Your task to perform on an android device: check android version Image 0: 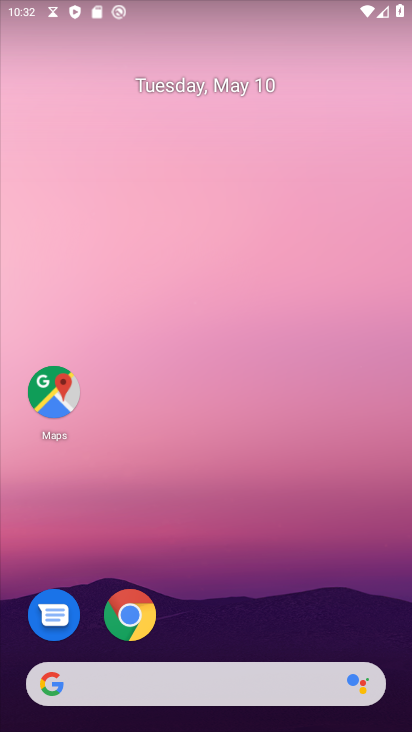
Step 0: drag from (232, 572) to (280, 51)
Your task to perform on an android device: check android version Image 1: 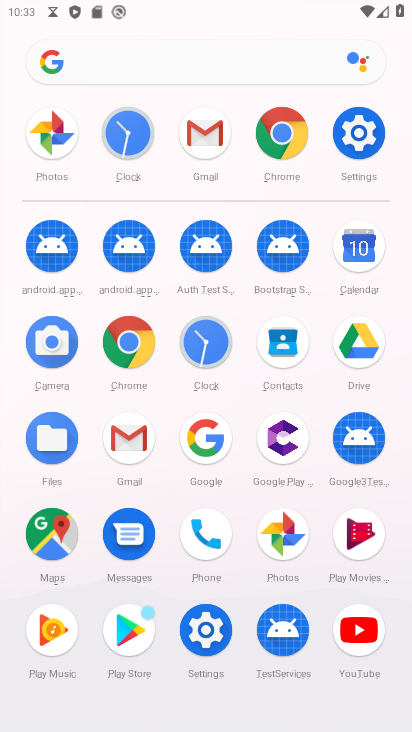
Step 1: click (206, 628)
Your task to perform on an android device: check android version Image 2: 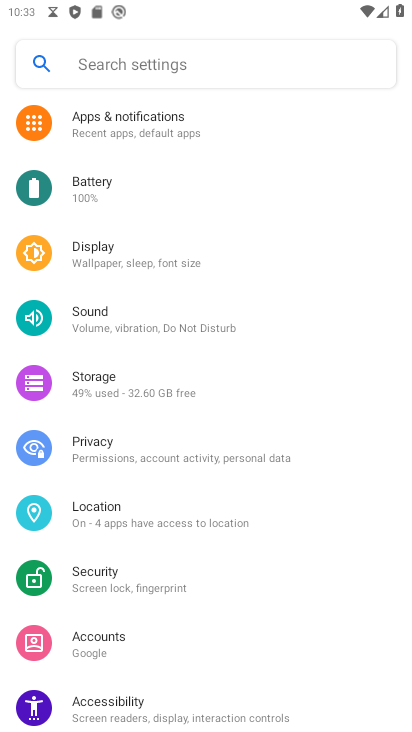
Step 2: drag from (209, 683) to (253, 560)
Your task to perform on an android device: check android version Image 3: 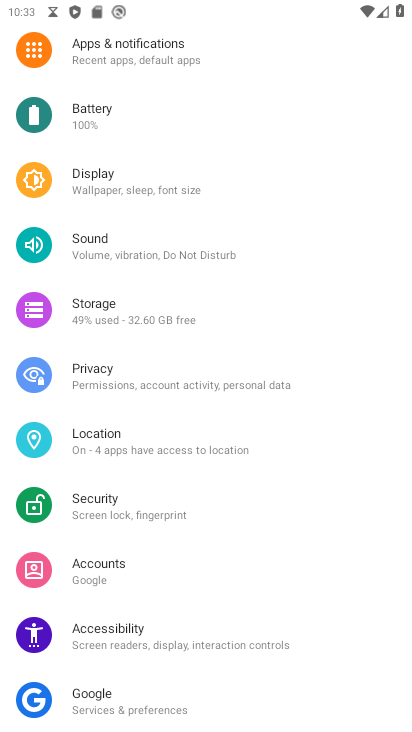
Step 3: drag from (192, 658) to (228, 564)
Your task to perform on an android device: check android version Image 4: 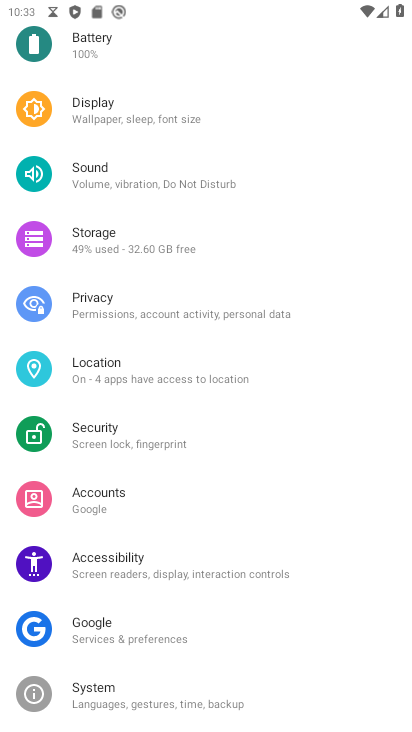
Step 4: drag from (182, 672) to (217, 570)
Your task to perform on an android device: check android version Image 5: 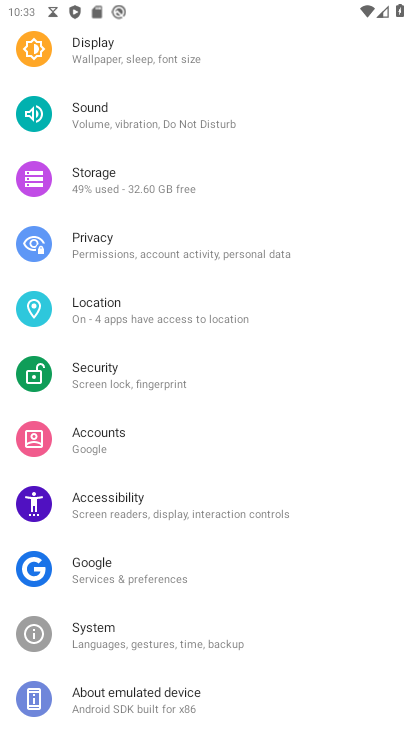
Step 5: click (147, 689)
Your task to perform on an android device: check android version Image 6: 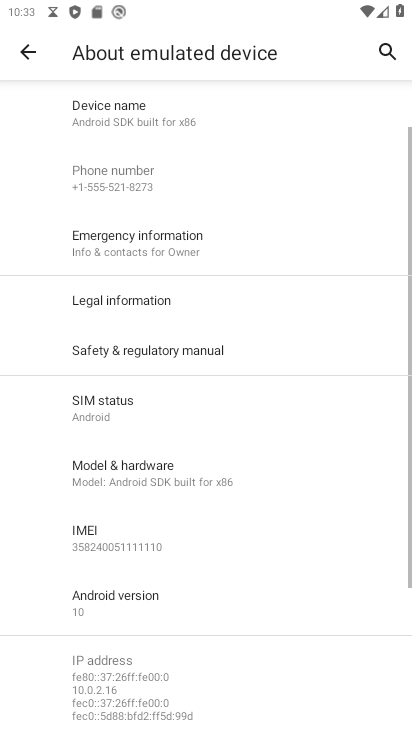
Step 6: click (137, 594)
Your task to perform on an android device: check android version Image 7: 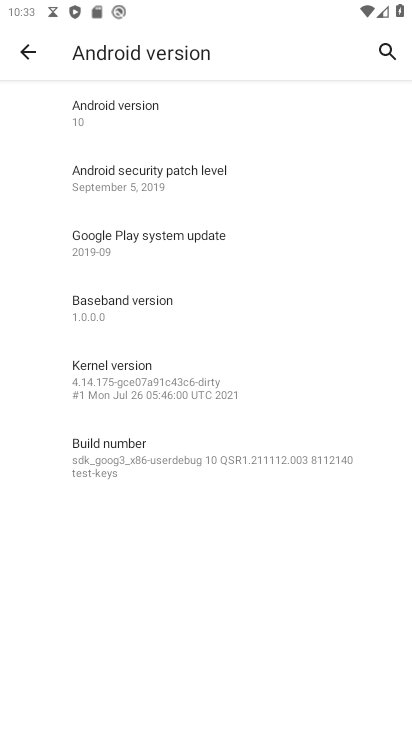
Step 7: task complete